Your task to perform on an android device: What's on my calendar tomorrow? Image 0: 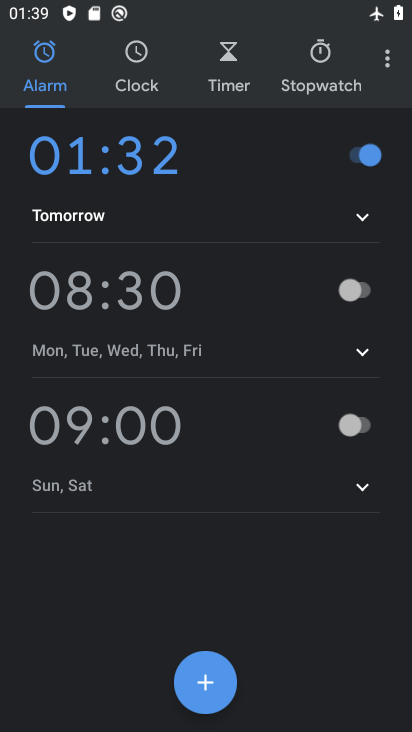
Step 0: press home button
Your task to perform on an android device: What's on my calendar tomorrow? Image 1: 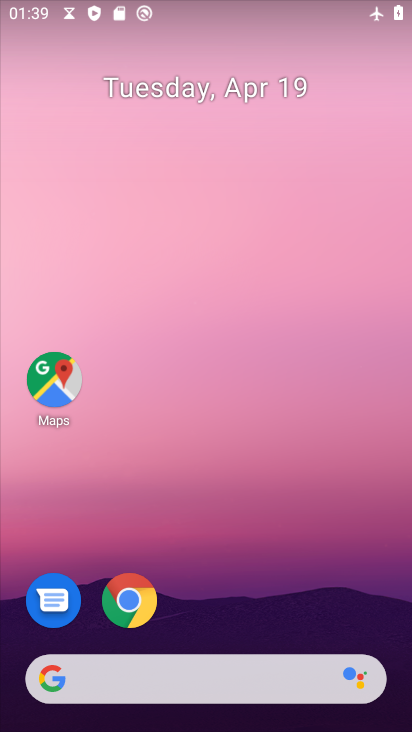
Step 1: drag from (227, 634) to (191, 127)
Your task to perform on an android device: What's on my calendar tomorrow? Image 2: 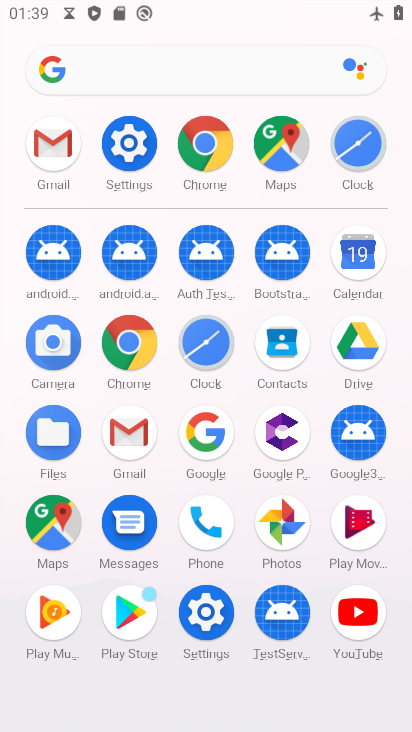
Step 2: click (371, 260)
Your task to perform on an android device: What's on my calendar tomorrow? Image 3: 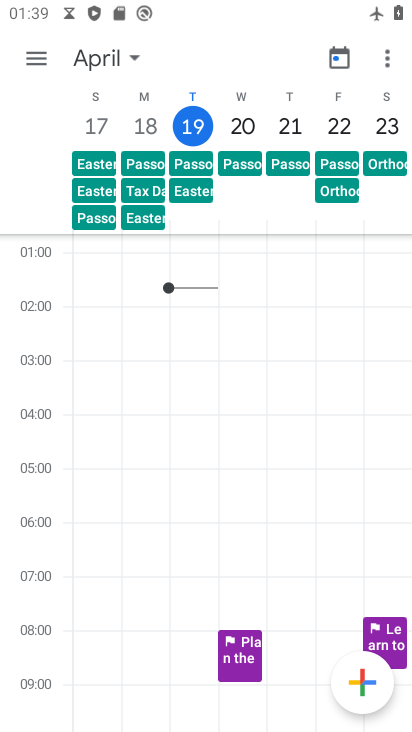
Step 3: click (243, 130)
Your task to perform on an android device: What's on my calendar tomorrow? Image 4: 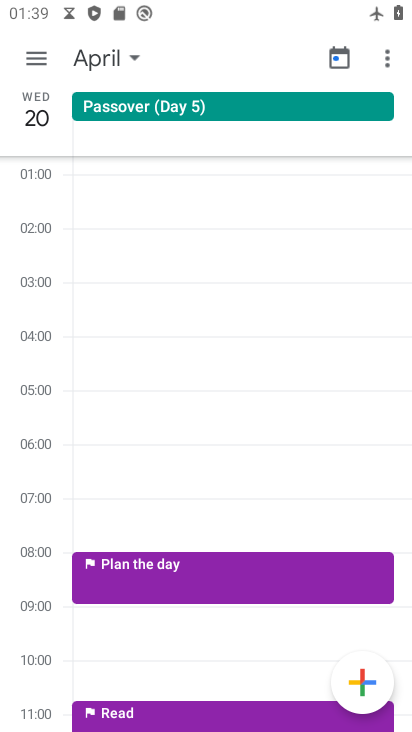
Step 4: task complete